Your task to perform on an android device: see tabs open on other devices in the chrome app Image 0: 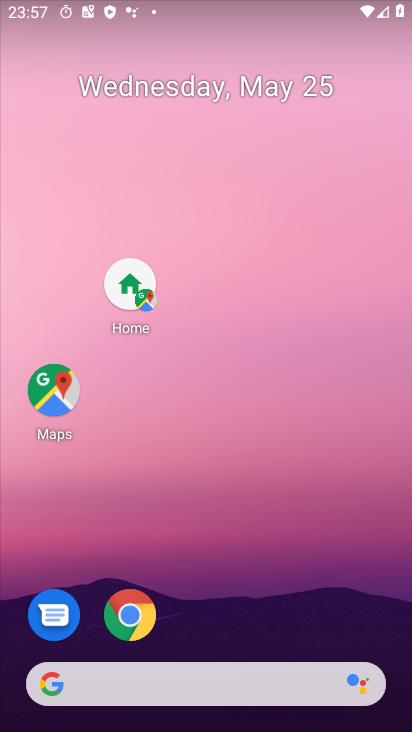
Step 0: click (129, 613)
Your task to perform on an android device: see tabs open on other devices in the chrome app Image 1: 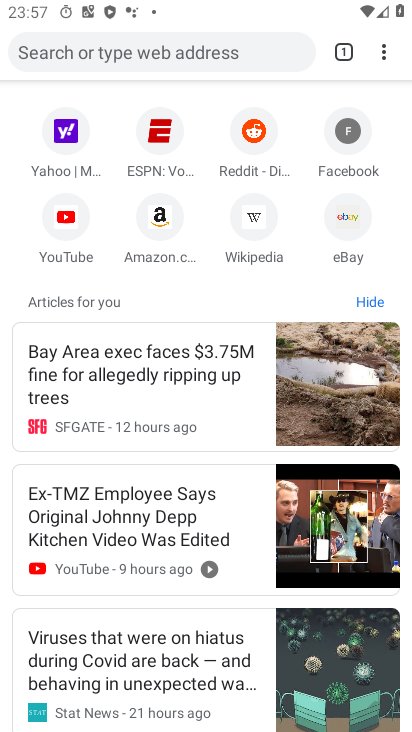
Step 1: task complete